Your task to perform on an android device: set default search engine in the chrome app Image 0: 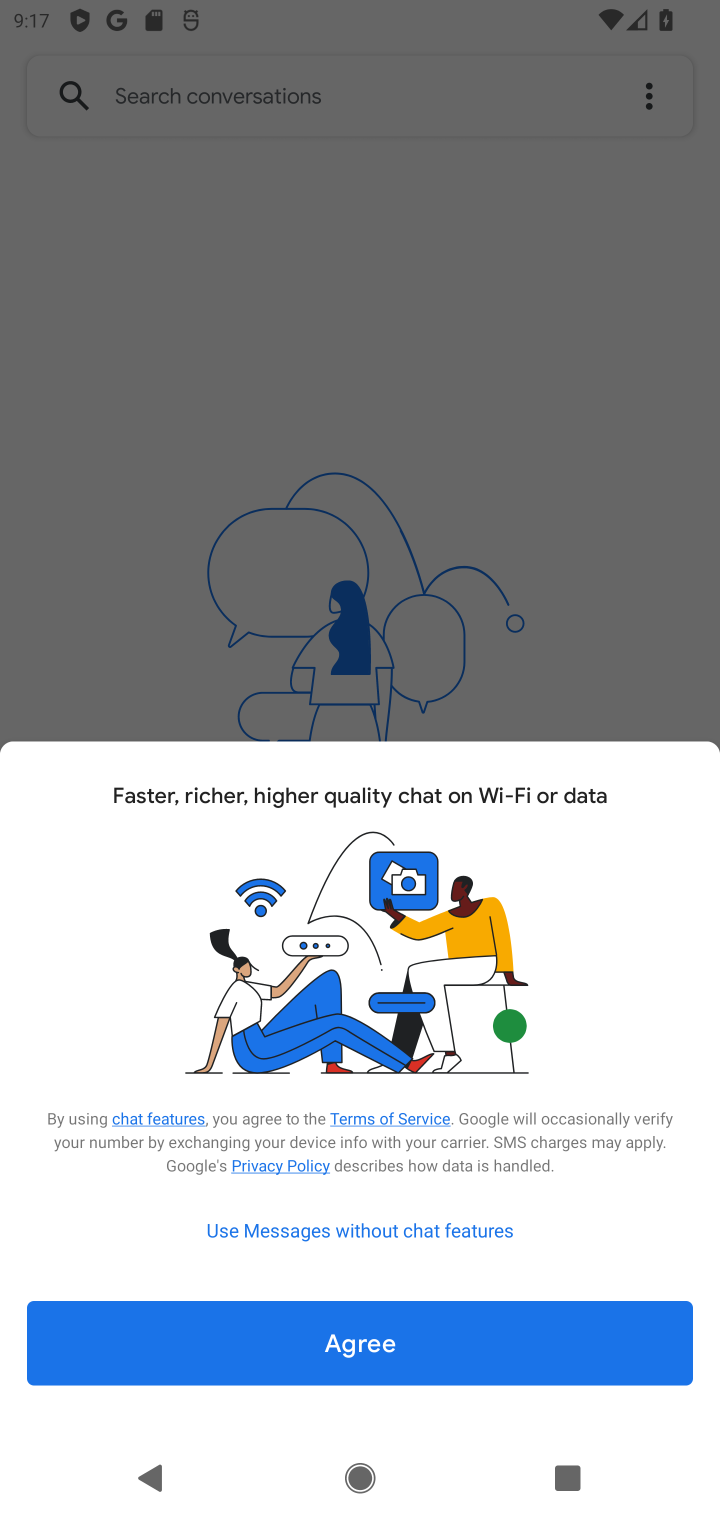
Step 0: press back button
Your task to perform on an android device: set default search engine in the chrome app Image 1: 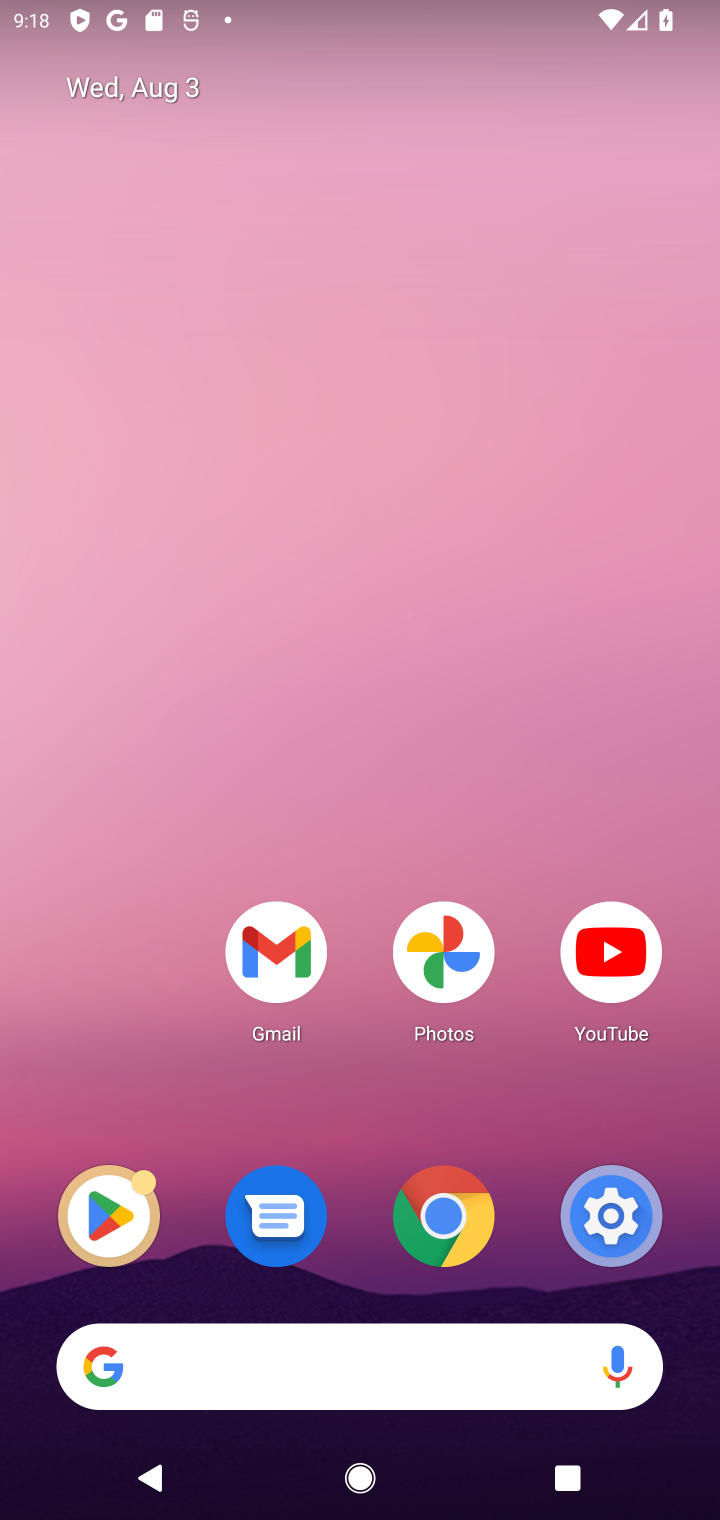
Step 1: click (437, 1227)
Your task to perform on an android device: set default search engine in the chrome app Image 2: 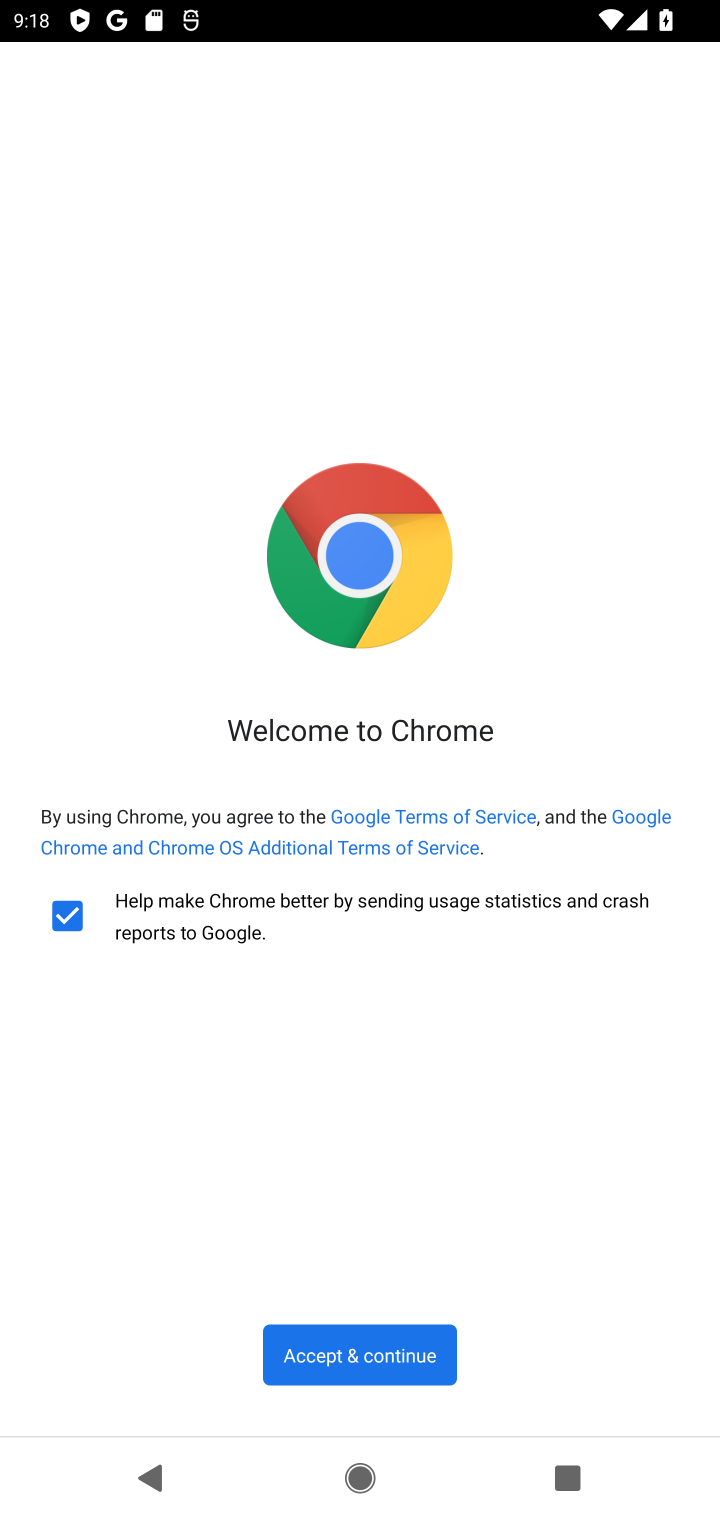
Step 2: click (340, 1341)
Your task to perform on an android device: set default search engine in the chrome app Image 3: 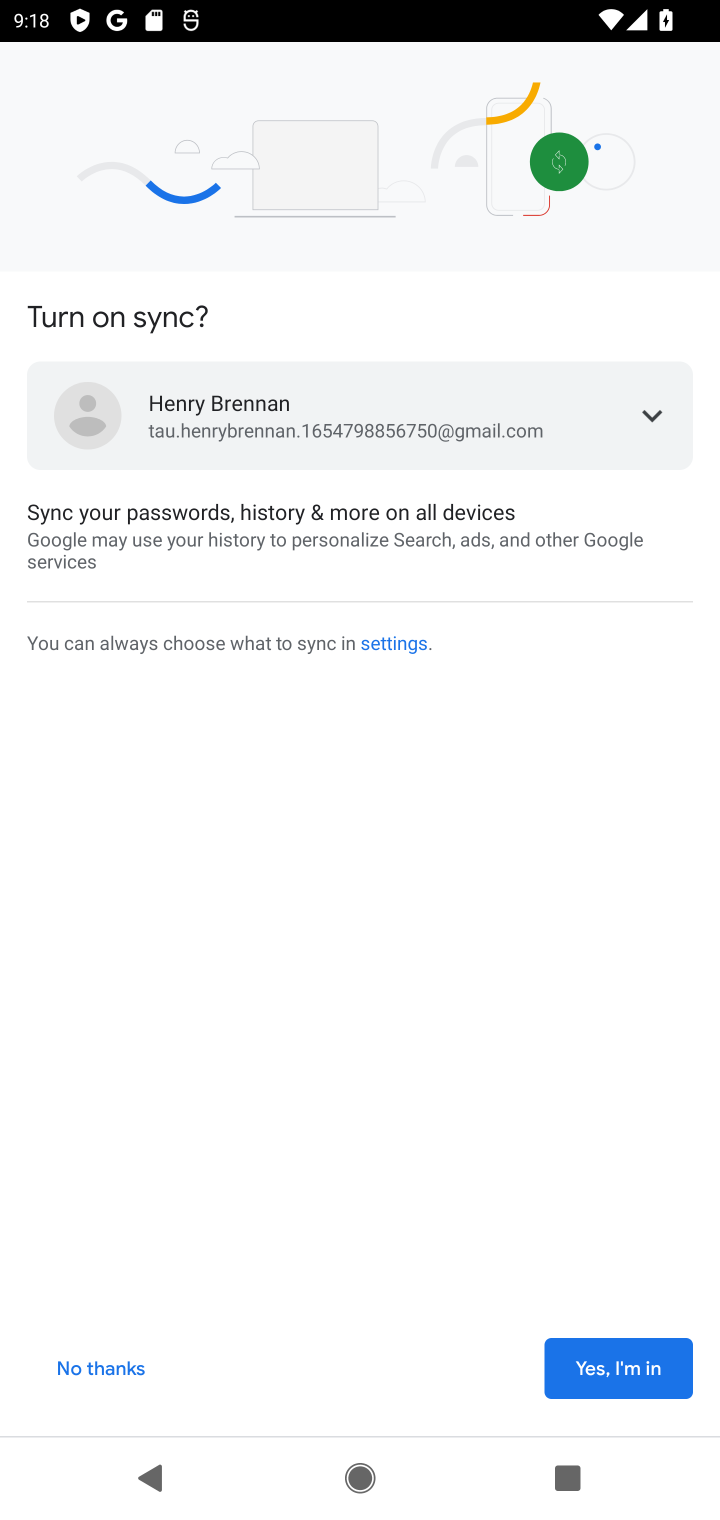
Step 3: click (595, 1376)
Your task to perform on an android device: set default search engine in the chrome app Image 4: 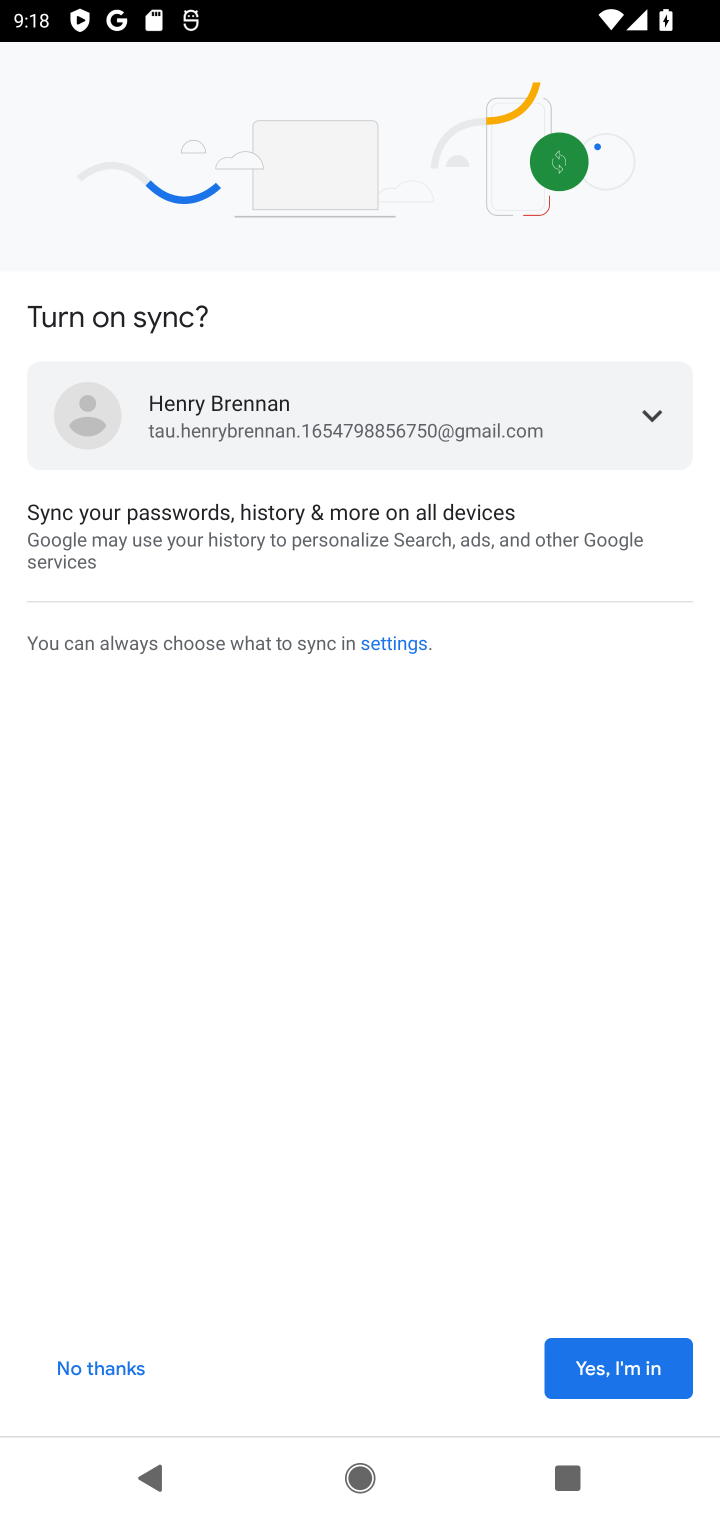
Step 4: press back button
Your task to perform on an android device: set default search engine in the chrome app Image 5: 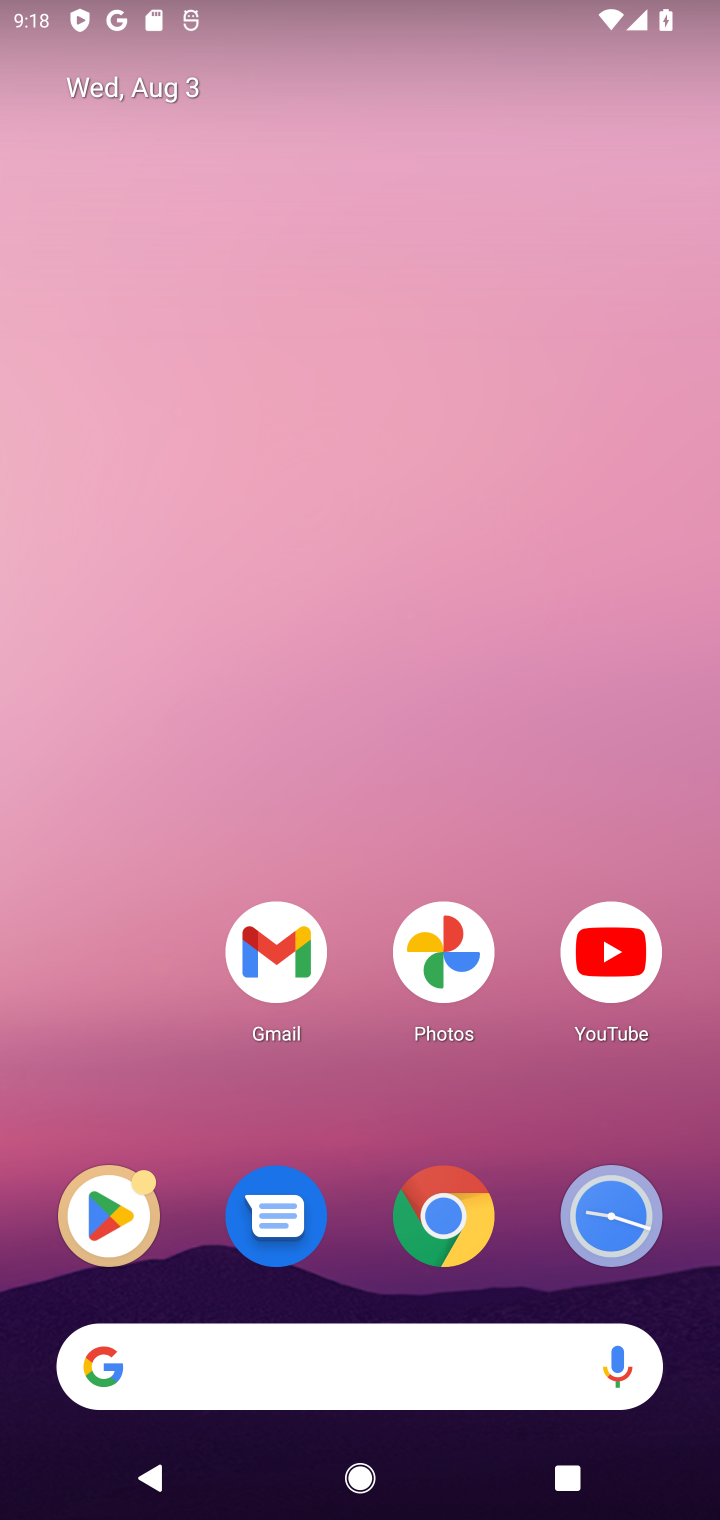
Step 5: click (475, 1239)
Your task to perform on an android device: set default search engine in the chrome app Image 6: 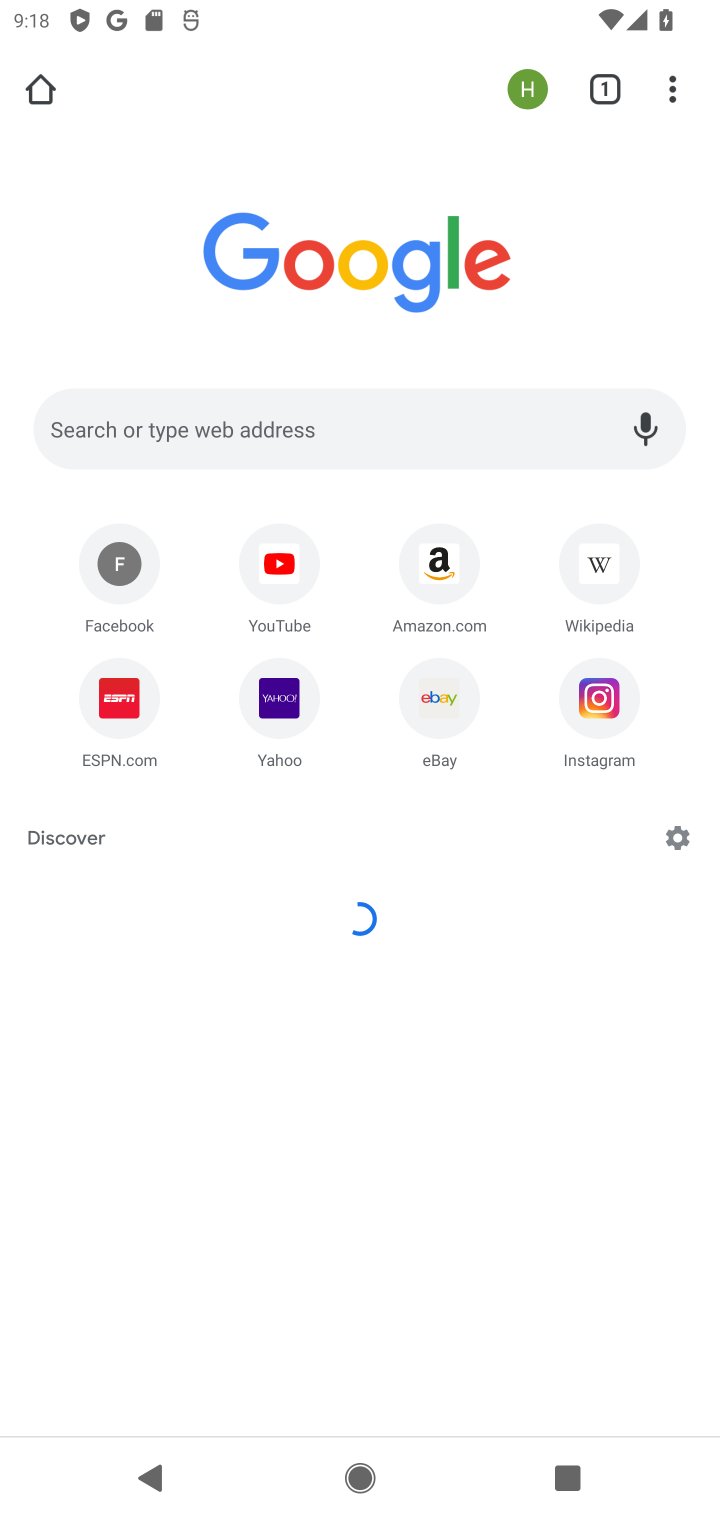
Step 6: drag from (669, 86) to (390, 780)
Your task to perform on an android device: set default search engine in the chrome app Image 7: 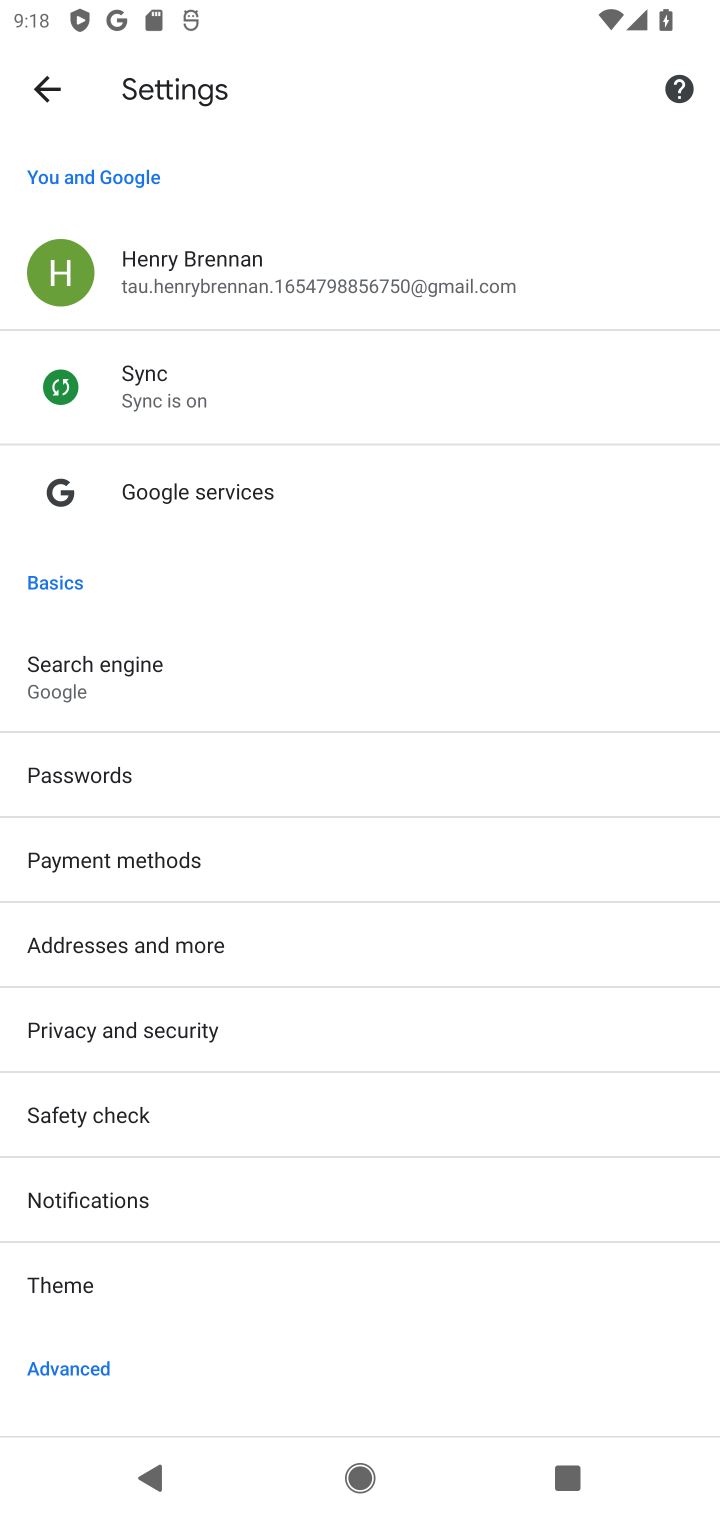
Step 7: click (198, 676)
Your task to perform on an android device: set default search engine in the chrome app Image 8: 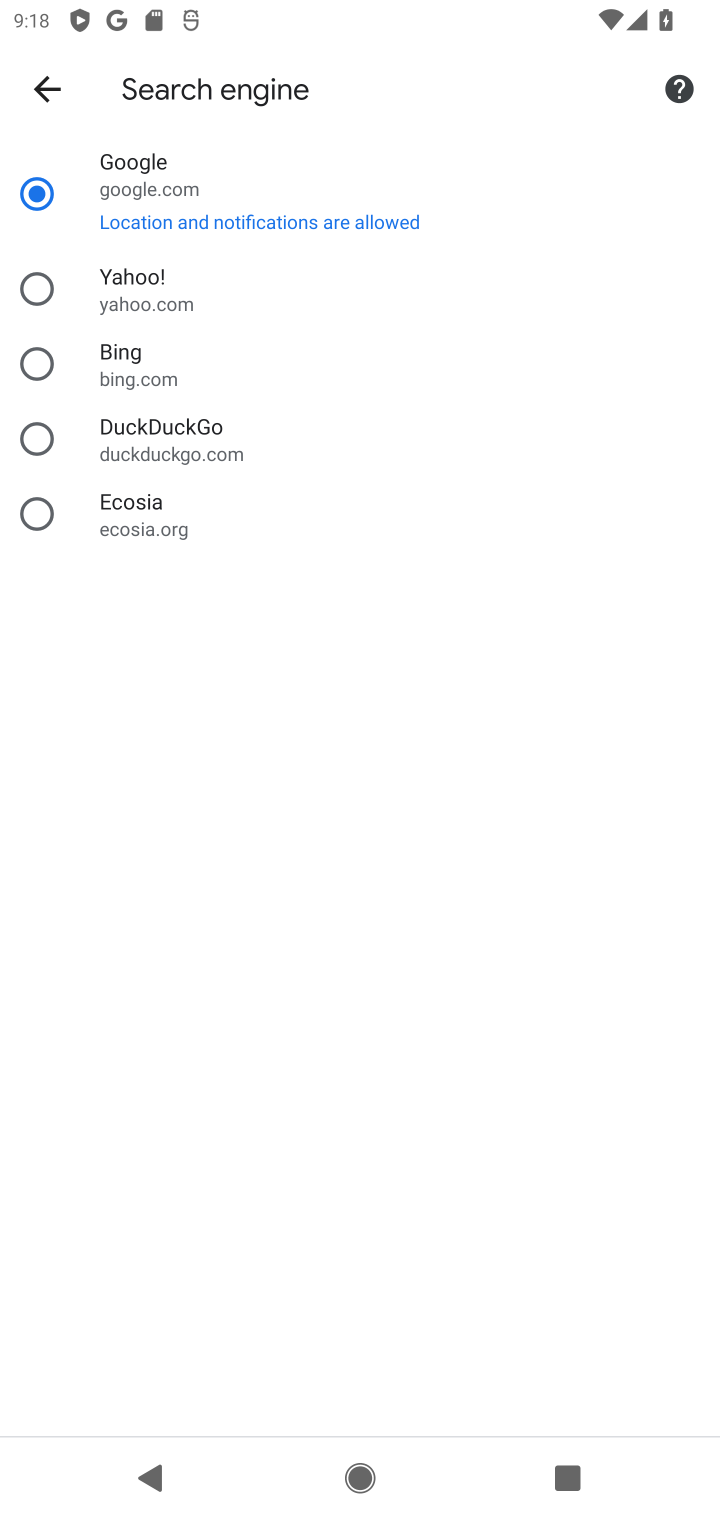
Step 8: click (58, 280)
Your task to perform on an android device: set default search engine in the chrome app Image 9: 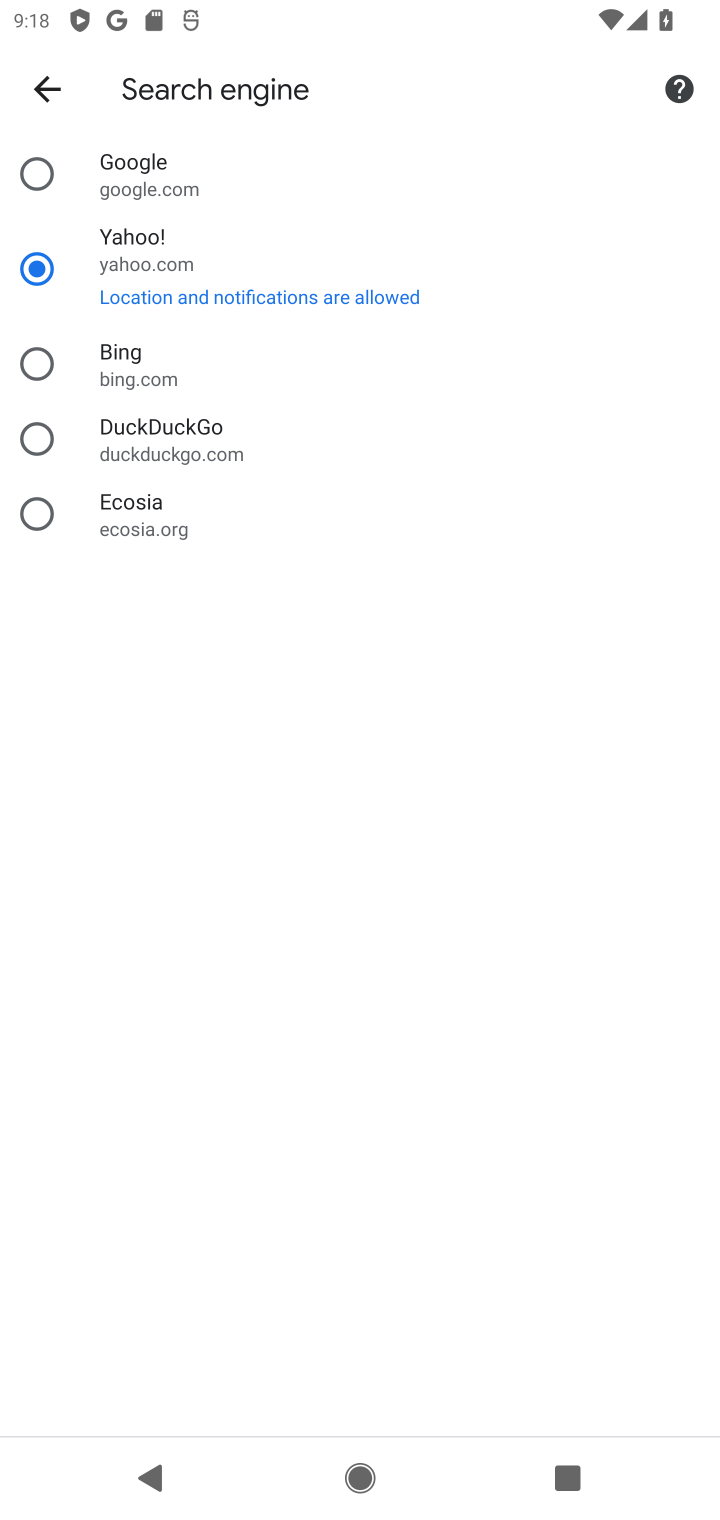
Step 9: task complete